Your task to perform on an android device: turn on location history Image 0: 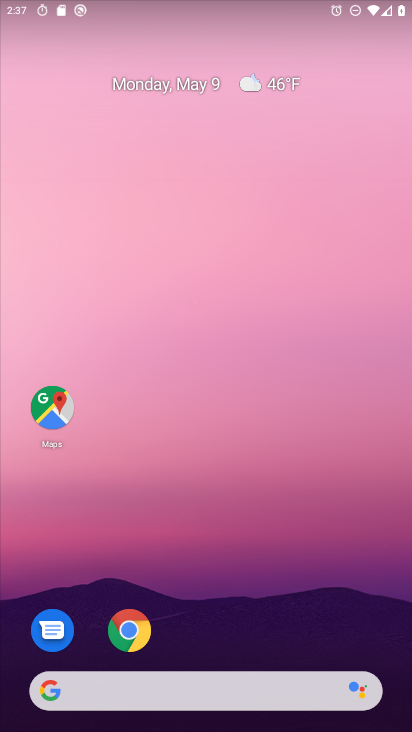
Step 0: drag from (238, 720) to (266, 359)
Your task to perform on an android device: turn on location history Image 1: 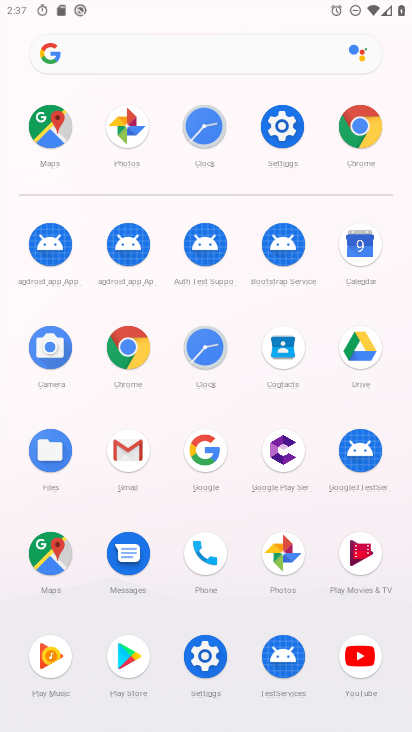
Step 1: click (205, 651)
Your task to perform on an android device: turn on location history Image 2: 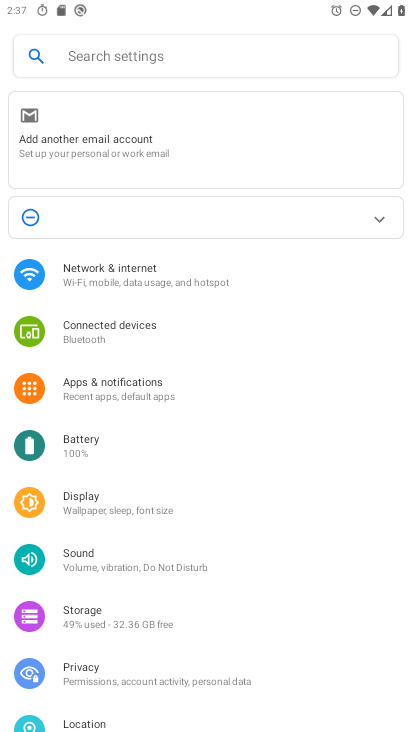
Step 2: click (121, 60)
Your task to perform on an android device: turn on location history Image 3: 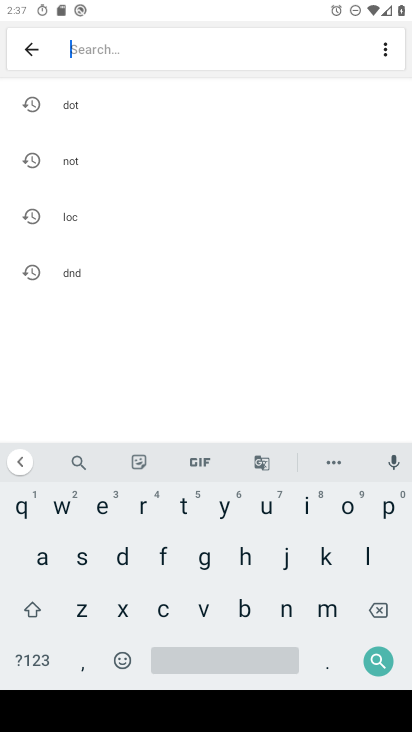
Step 3: click (66, 213)
Your task to perform on an android device: turn on location history Image 4: 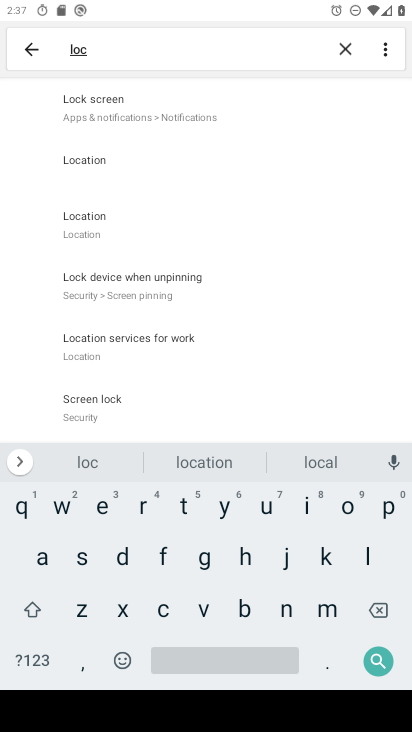
Step 4: click (88, 221)
Your task to perform on an android device: turn on location history Image 5: 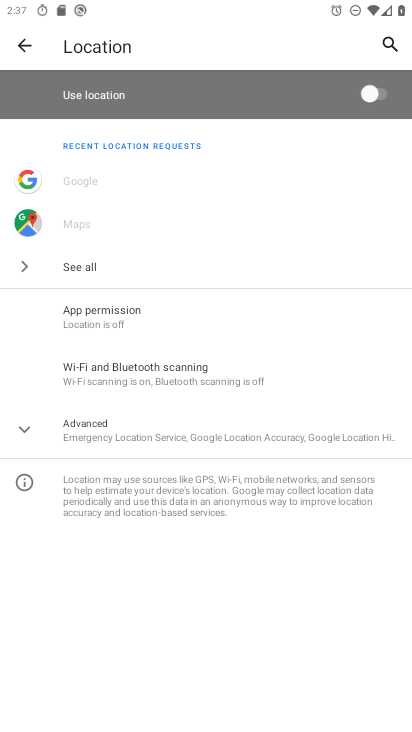
Step 5: click (48, 429)
Your task to perform on an android device: turn on location history Image 6: 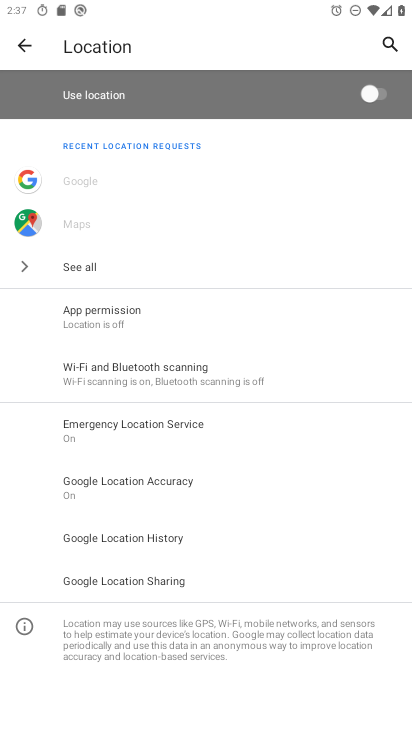
Step 6: click (93, 535)
Your task to perform on an android device: turn on location history Image 7: 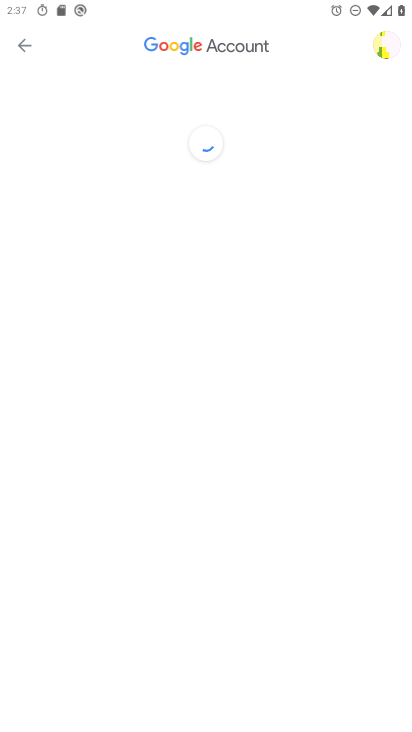
Step 7: task complete